Your task to perform on an android device: Turn on the flashlight Image 0: 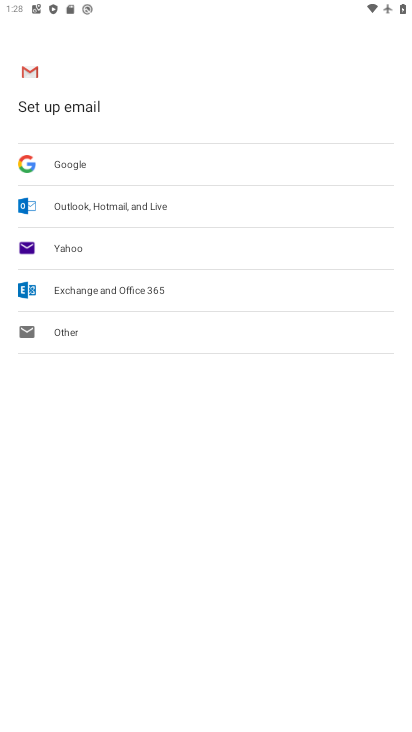
Step 0: press home button
Your task to perform on an android device: Turn on the flashlight Image 1: 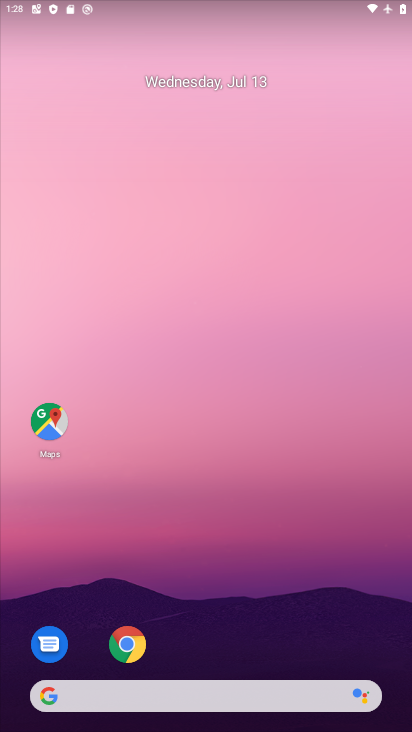
Step 1: drag from (283, 482) to (288, 67)
Your task to perform on an android device: Turn on the flashlight Image 2: 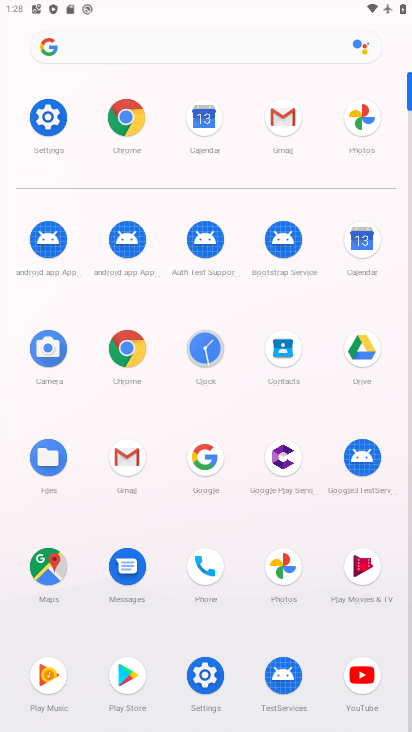
Step 2: click (49, 120)
Your task to perform on an android device: Turn on the flashlight Image 3: 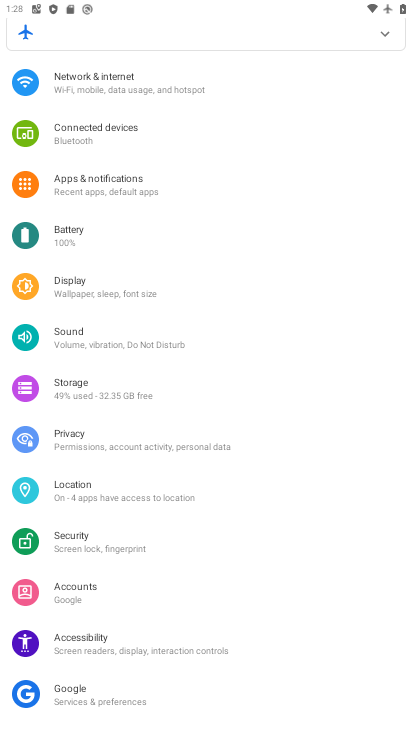
Step 3: click (113, 297)
Your task to perform on an android device: Turn on the flashlight Image 4: 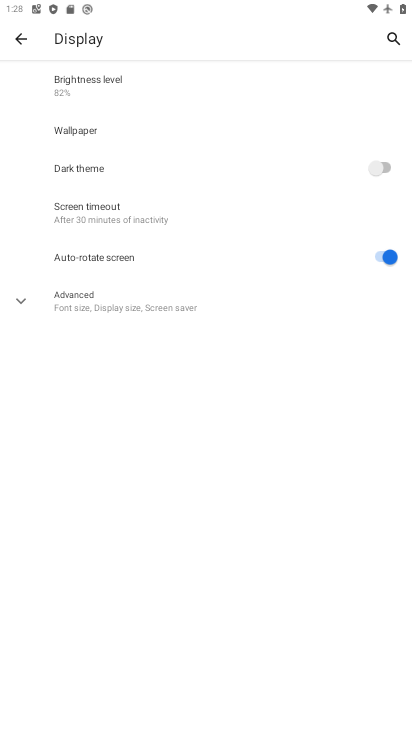
Step 4: task complete